Your task to perform on an android device: move a message to another label in the gmail app Image 0: 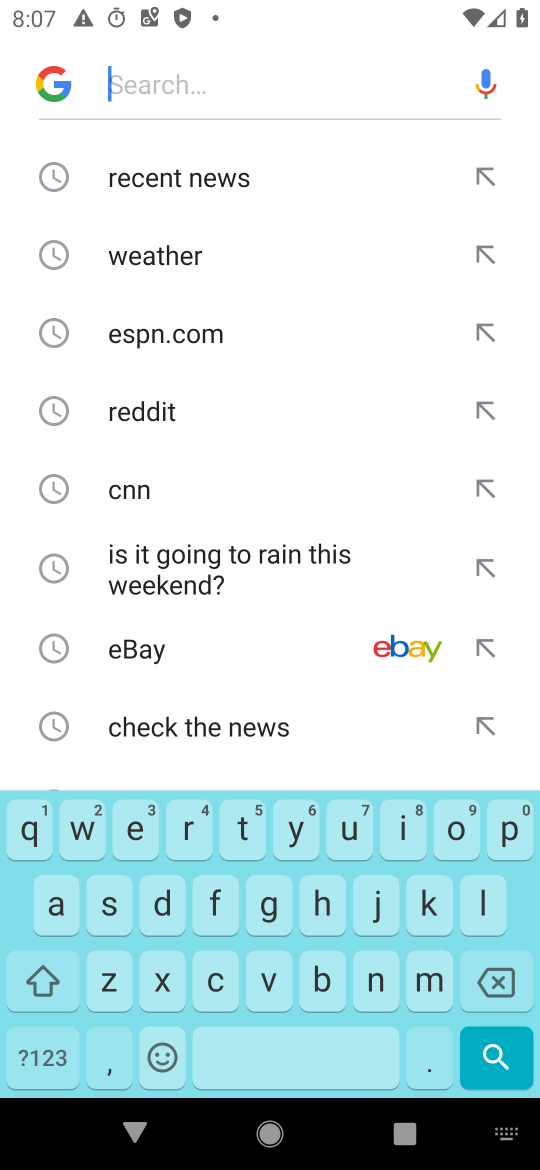
Step 0: press home button
Your task to perform on an android device: move a message to another label in the gmail app Image 1: 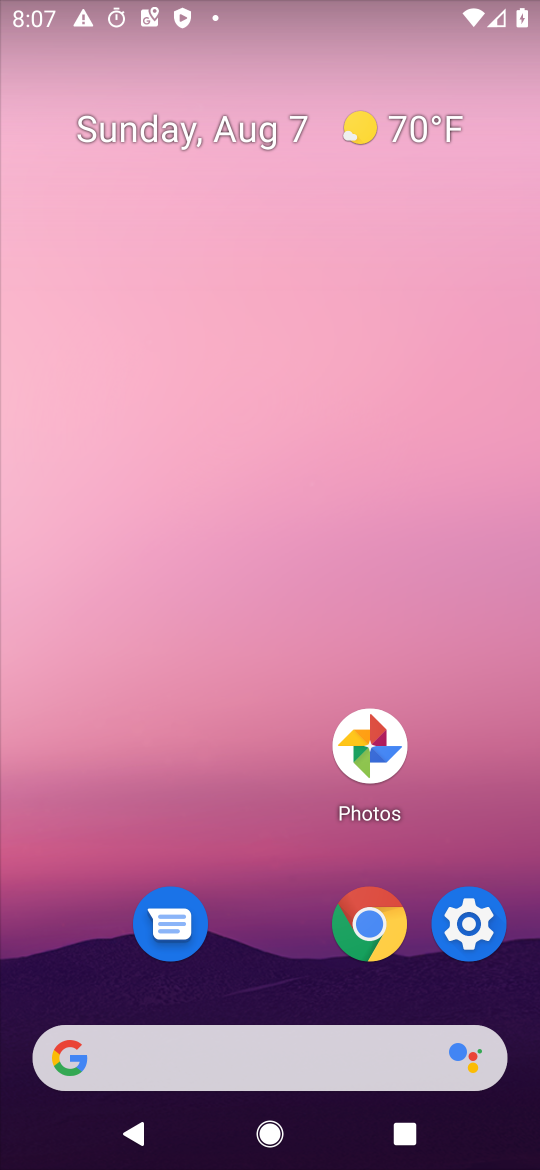
Step 1: drag from (376, 1065) to (321, 125)
Your task to perform on an android device: move a message to another label in the gmail app Image 2: 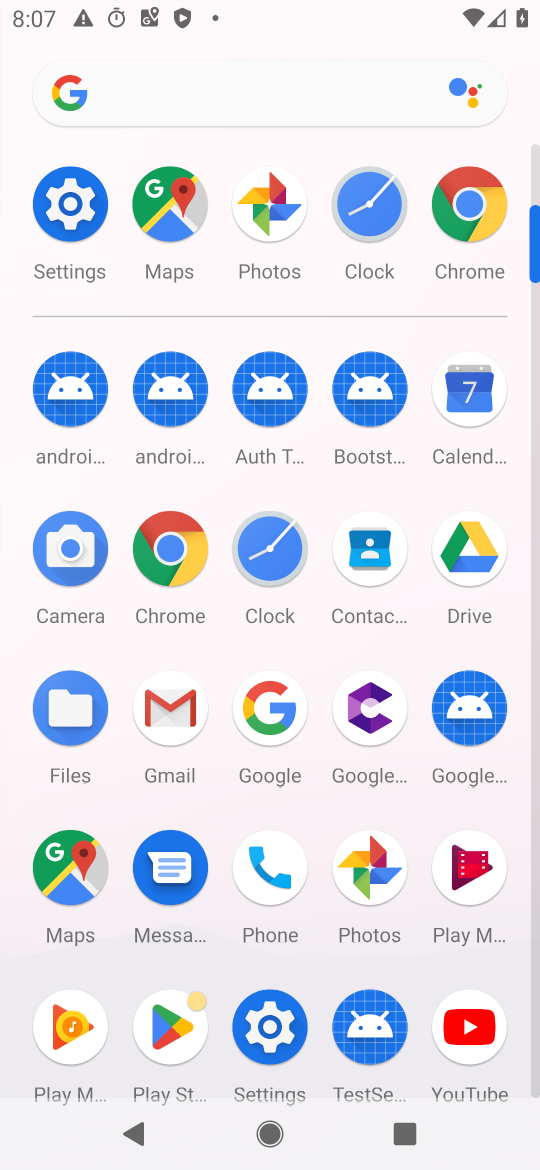
Step 2: drag from (165, 733) to (258, 968)
Your task to perform on an android device: move a message to another label in the gmail app Image 3: 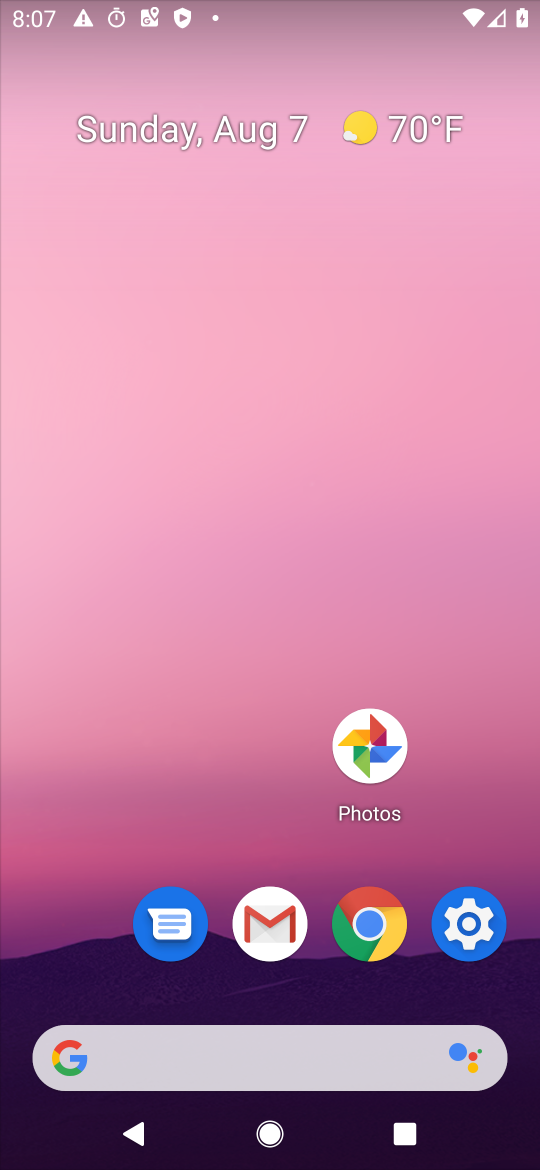
Step 3: click (273, 922)
Your task to perform on an android device: move a message to another label in the gmail app Image 4: 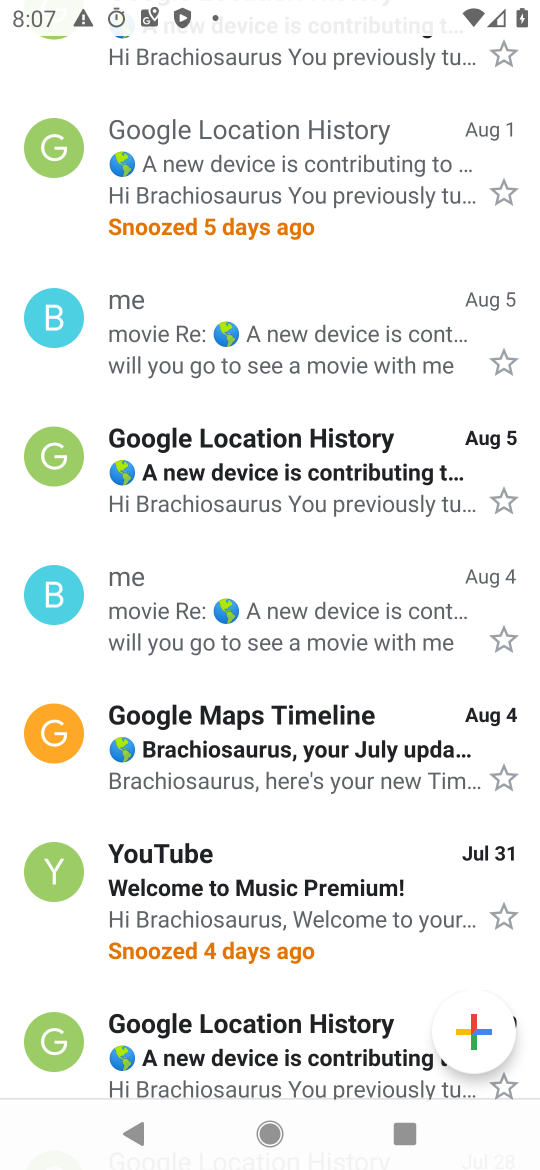
Step 4: click (309, 191)
Your task to perform on an android device: move a message to another label in the gmail app Image 5: 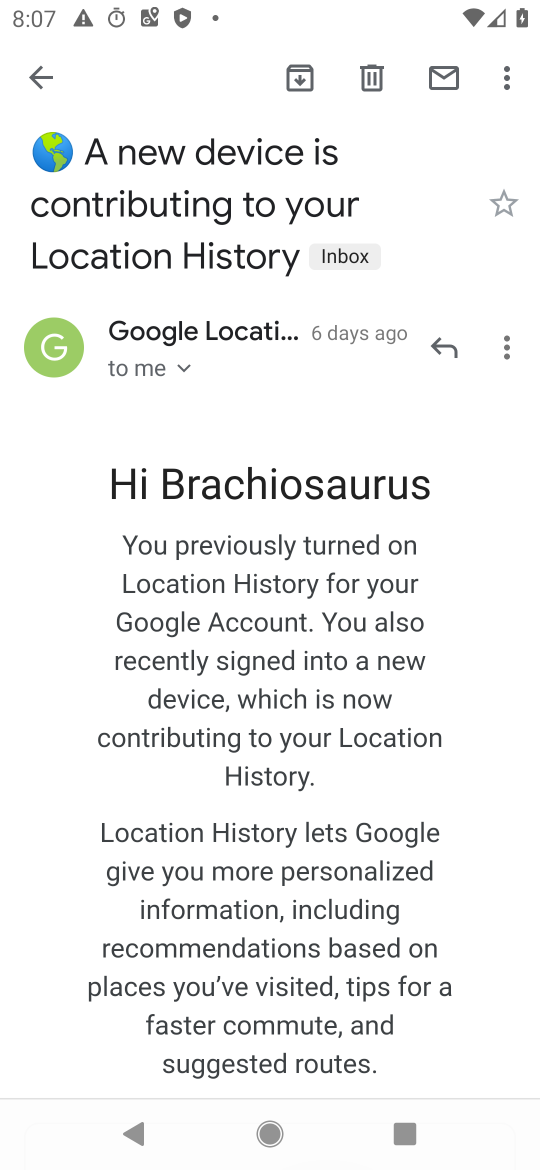
Step 5: click (514, 84)
Your task to perform on an android device: move a message to another label in the gmail app Image 6: 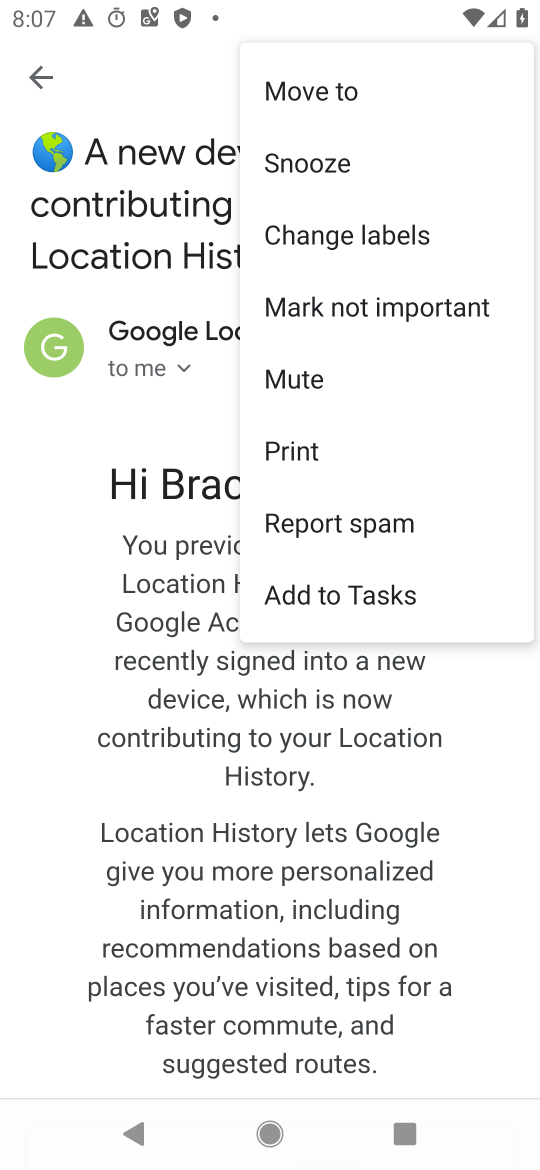
Step 6: click (372, 231)
Your task to perform on an android device: move a message to another label in the gmail app Image 7: 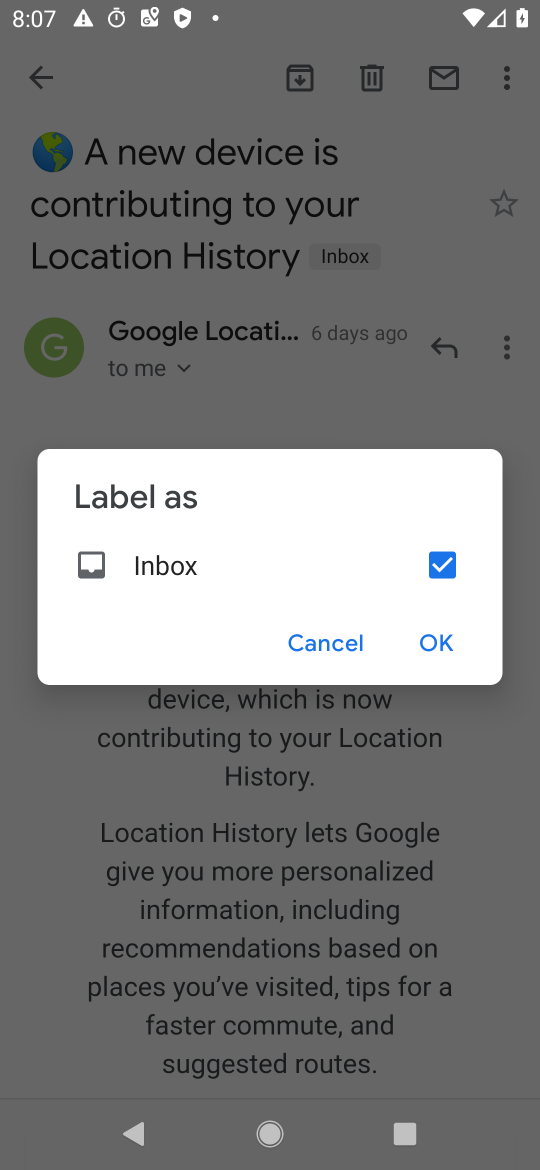
Step 7: click (439, 558)
Your task to perform on an android device: move a message to another label in the gmail app Image 8: 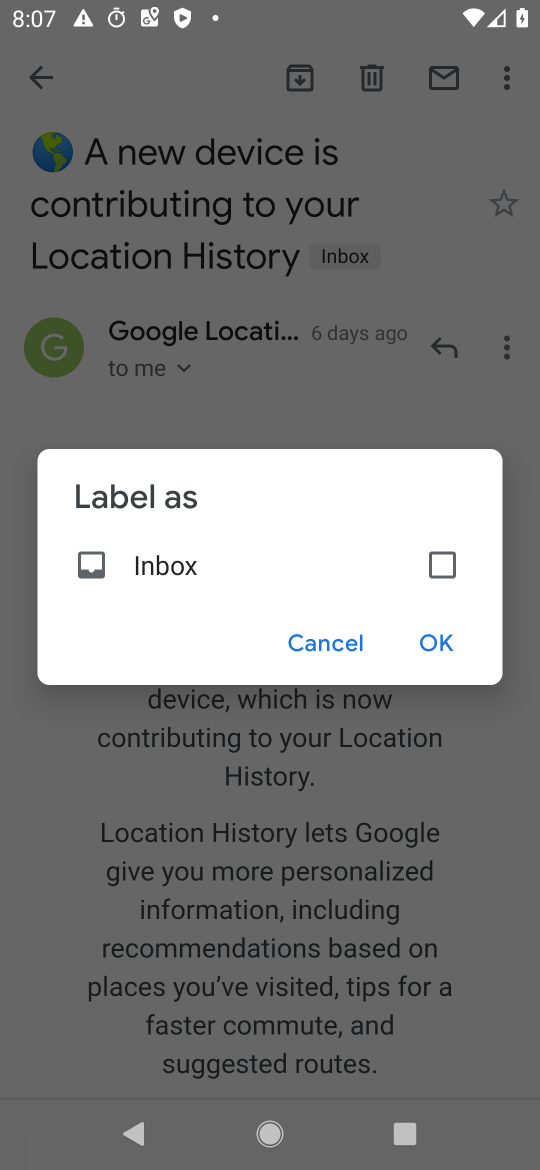
Step 8: click (429, 636)
Your task to perform on an android device: move a message to another label in the gmail app Image 9: 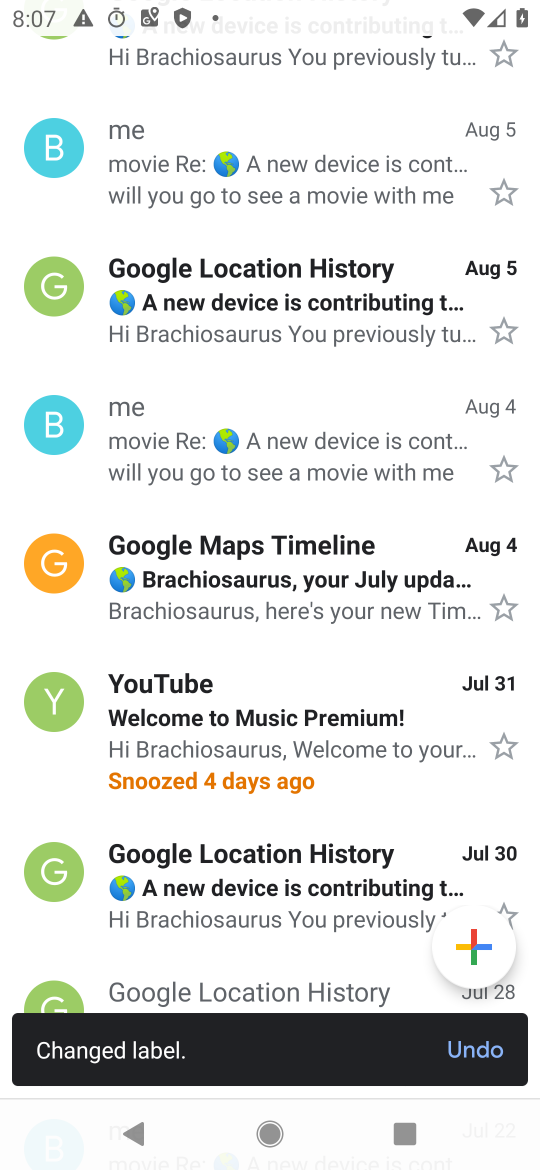
Step 9: task complete